Your task to perform on an android device: change the clock display to show seconds Image 0: 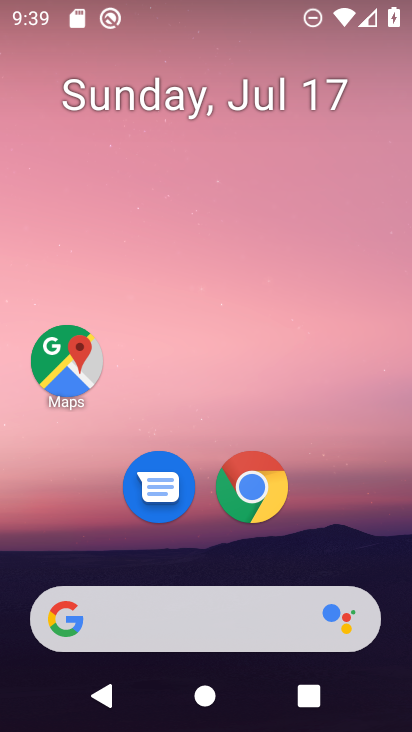
Step 0: press home button
Your task to perform on an android device: change the clock display to show seconds Image 1: 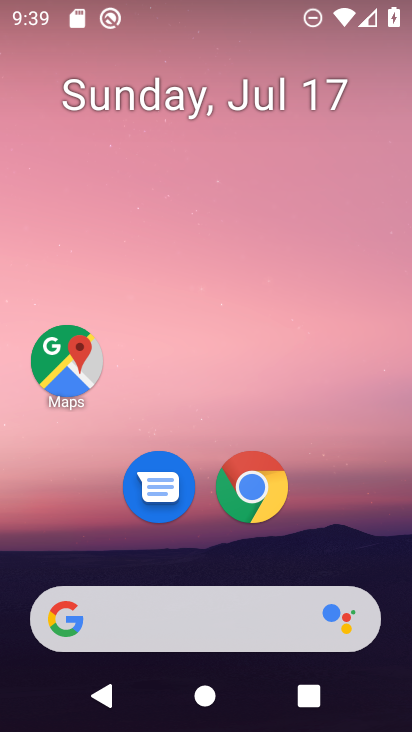
Step 1: drag from (341, 573) to (345, 108)
Your task to perform on an android device: change the clock display to show seconds Image 2: 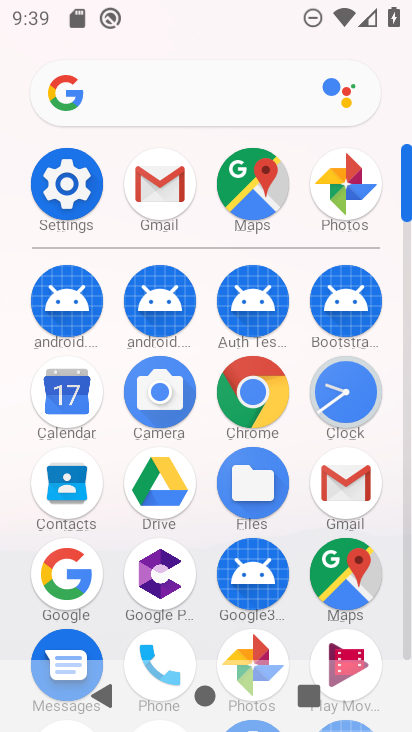
Step 2: click (341, 385)
Your task to perform on an android device: change the clock display to show seconds Image 3: 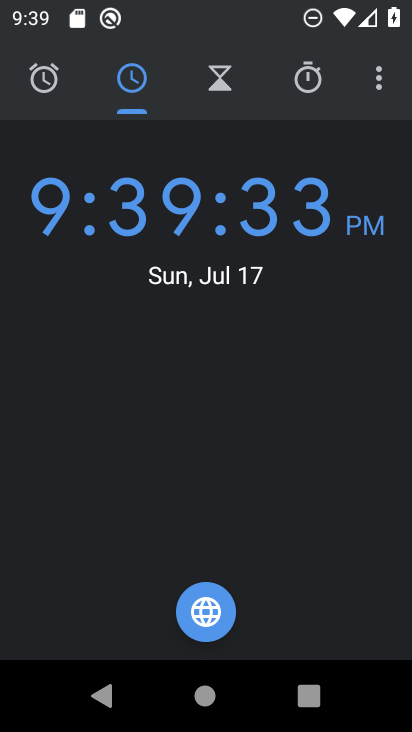
Step 3: click (381, 81)
Your task to perform on an android device: change the clock display to show seconds Image 4: 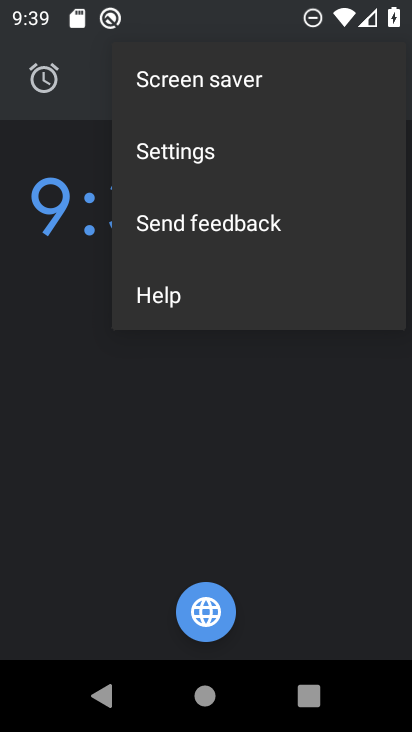
Step 4: click (179, 157)
Your task to perform on an android device: change the clock display to show seconds Image 5: 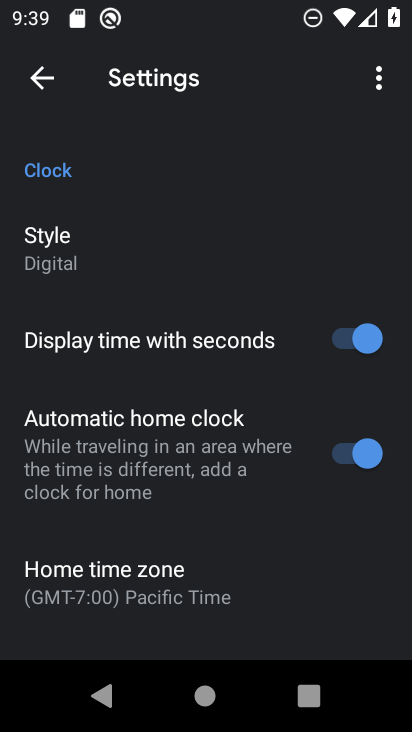
Step 5: task complete